Your task to perform on an android device: View the shopping cart on walmart.com. Image 0: 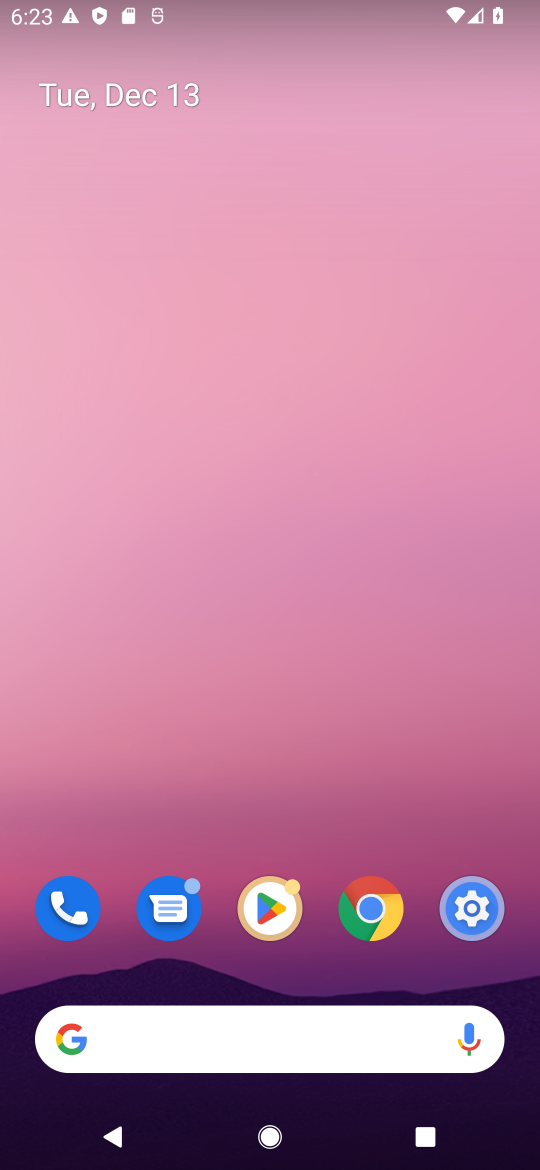
Step 0: press home button
Your task to perform on an android device: View the shopping cart on walmart.com. Image 1: 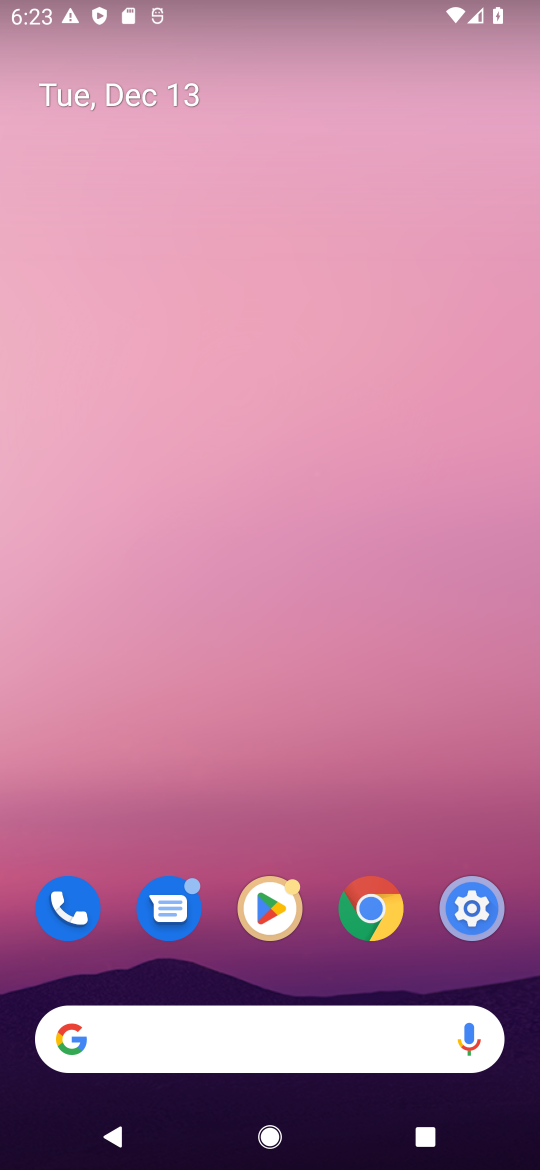
Step 1: drag from (494, 835) to (489, 384)
Your task to perform on an android device: View the shopping cart on walmart.com. Image 2: 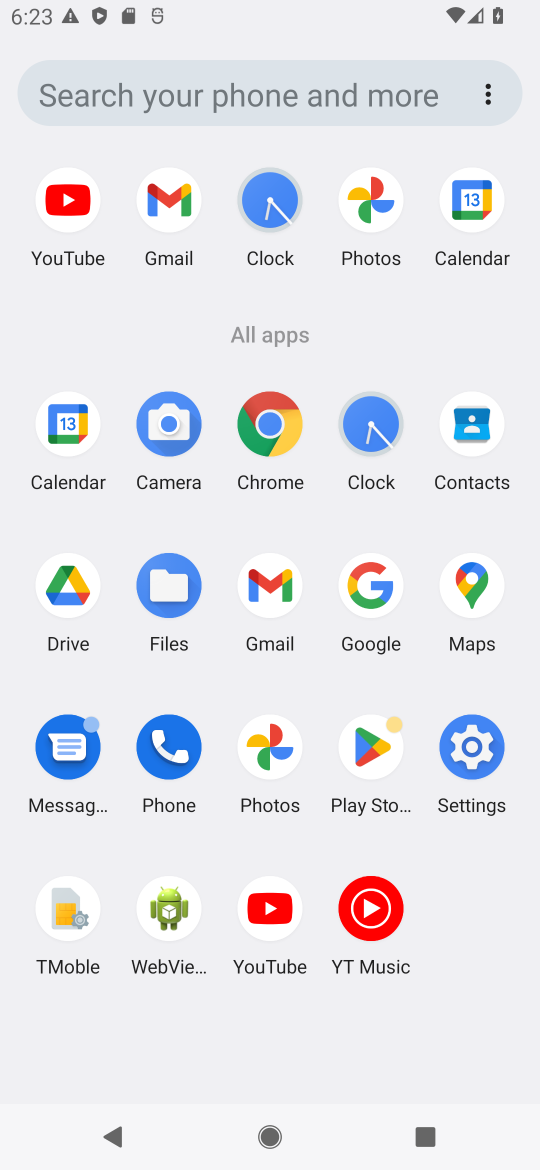
Step 2: press home button
Your task to perform on an android device: View the shopping cart on walmart.com. Image 3: 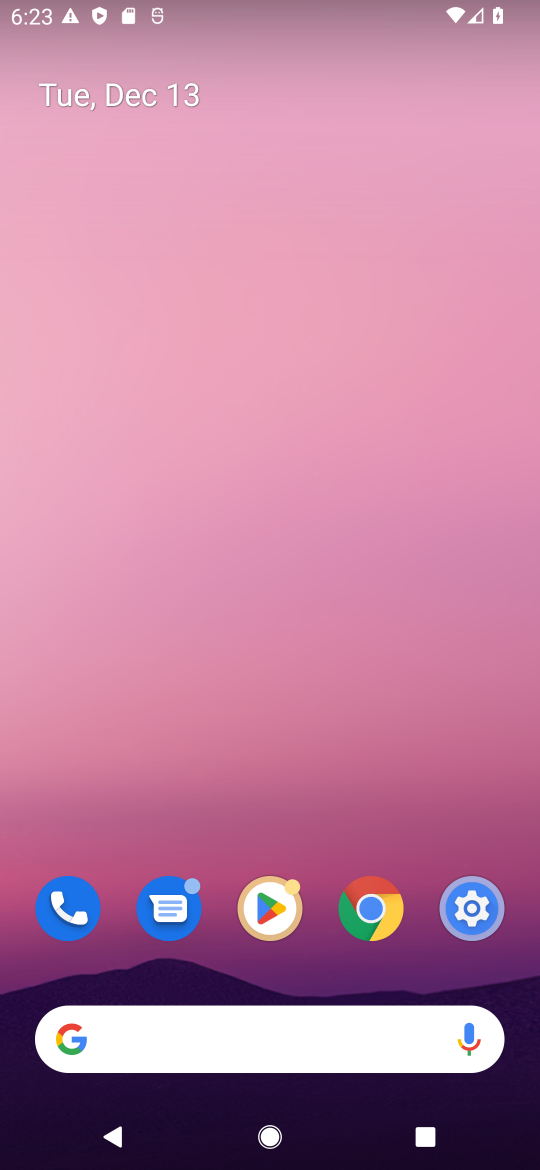
Step 3: click (108, 1035)
Your task to perform on an android device: View the shopping cart on walmart.com. Image 4: 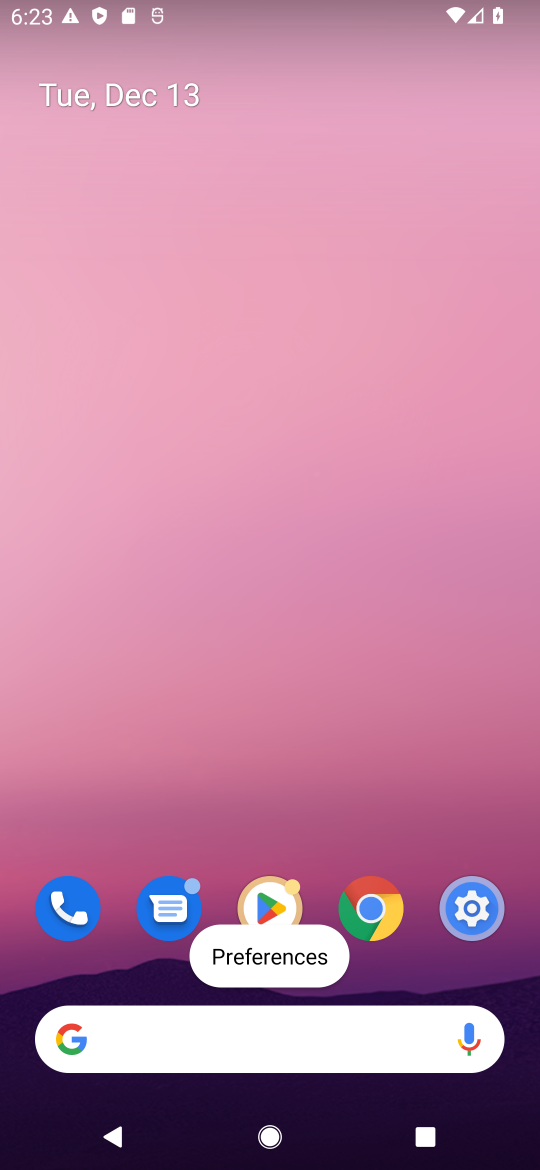
Step 4: click (106, 1045)
Your task to perform on an android device: View the shopping cart on walmart.com. Image 5: 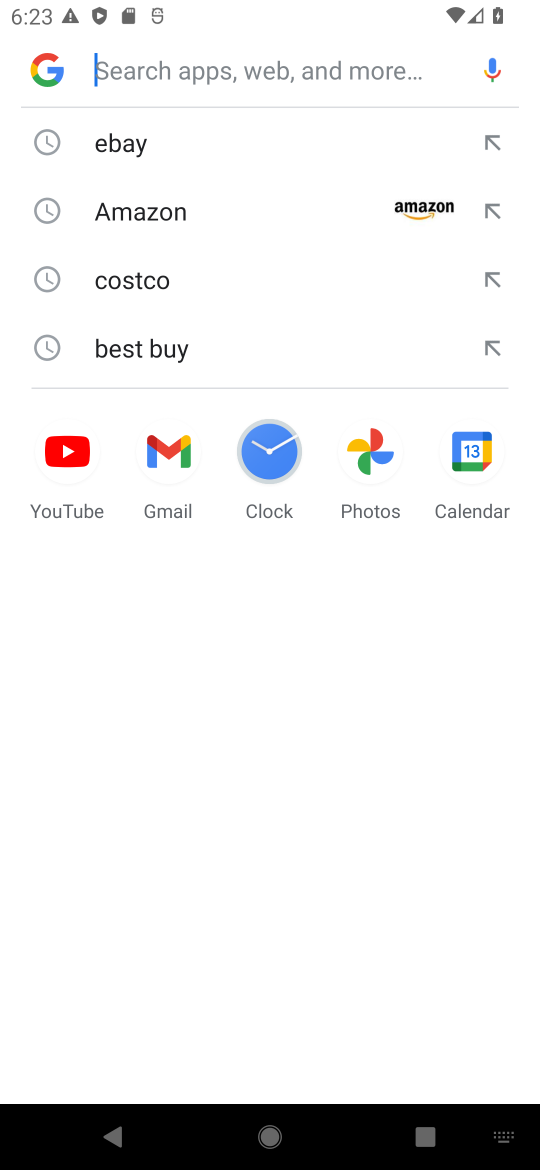
Step 5: press enter
Your task to perform on an android device: View the shopping cart on walmart.com. Image 6: 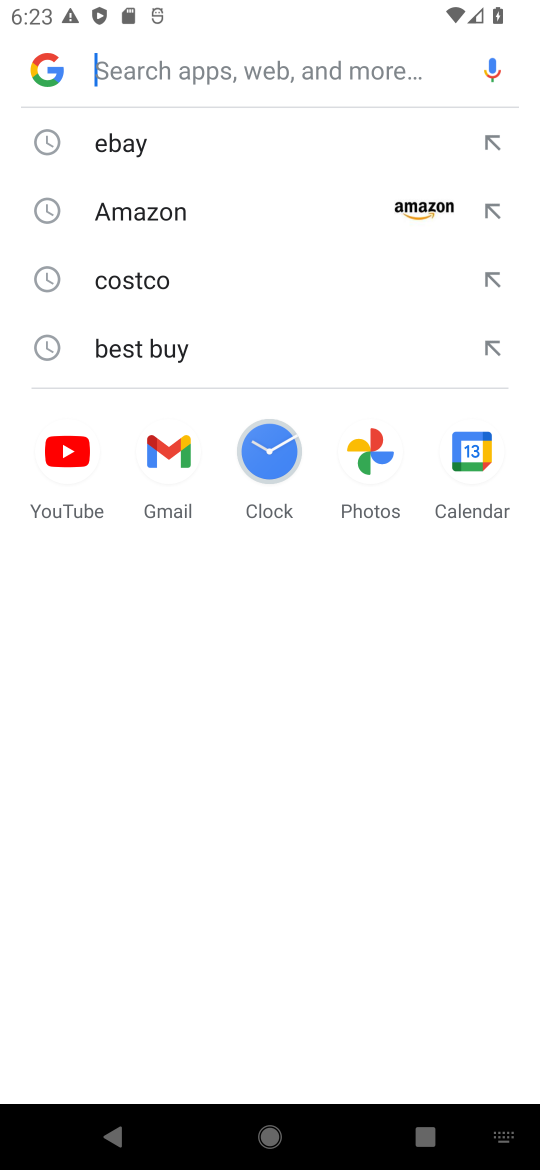
Step 6: type "walmart.com"
Your task to perform on an android device: View the shopping cart on walmart.com. Image 7: 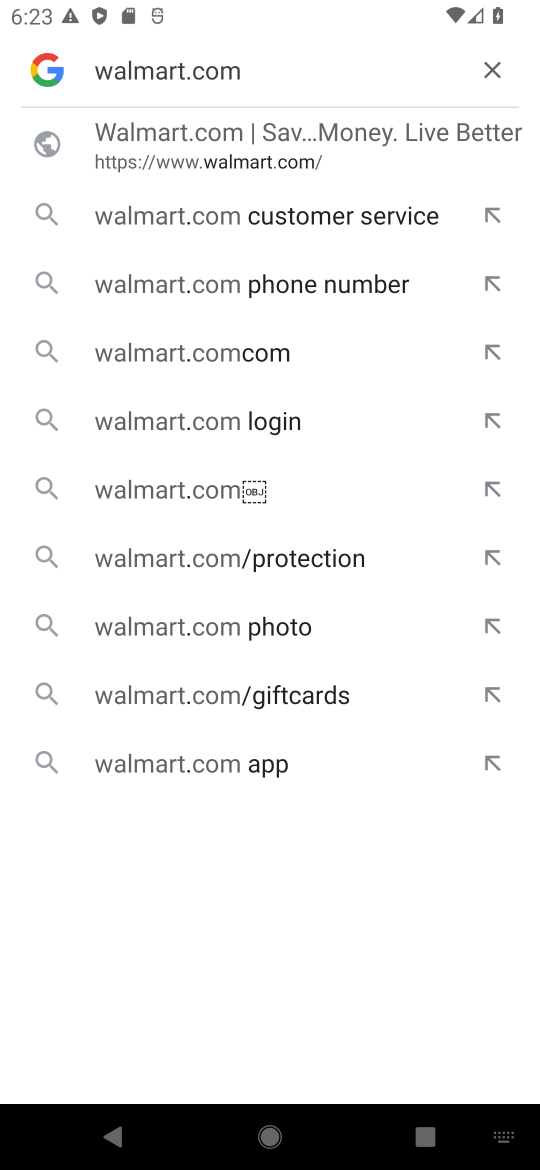
Step 7: press enter
Your task to perform on an android device: View the shopping cart on walmart.com. Image 8: 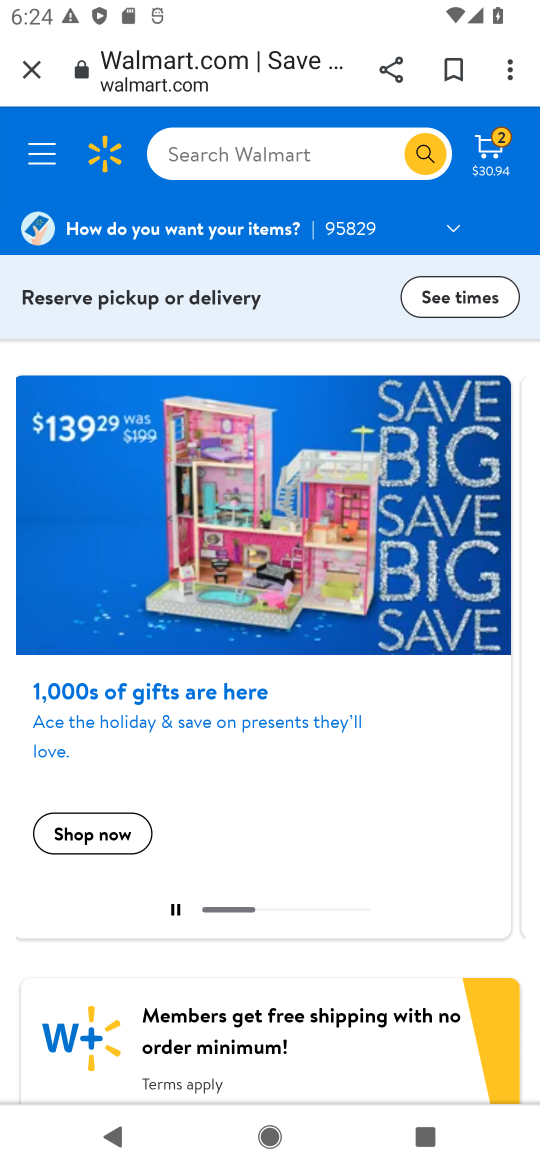
Step 8: click (487, 144)
Your task to perform on an android device: View the shopping cart on walmart.com. Image 9: 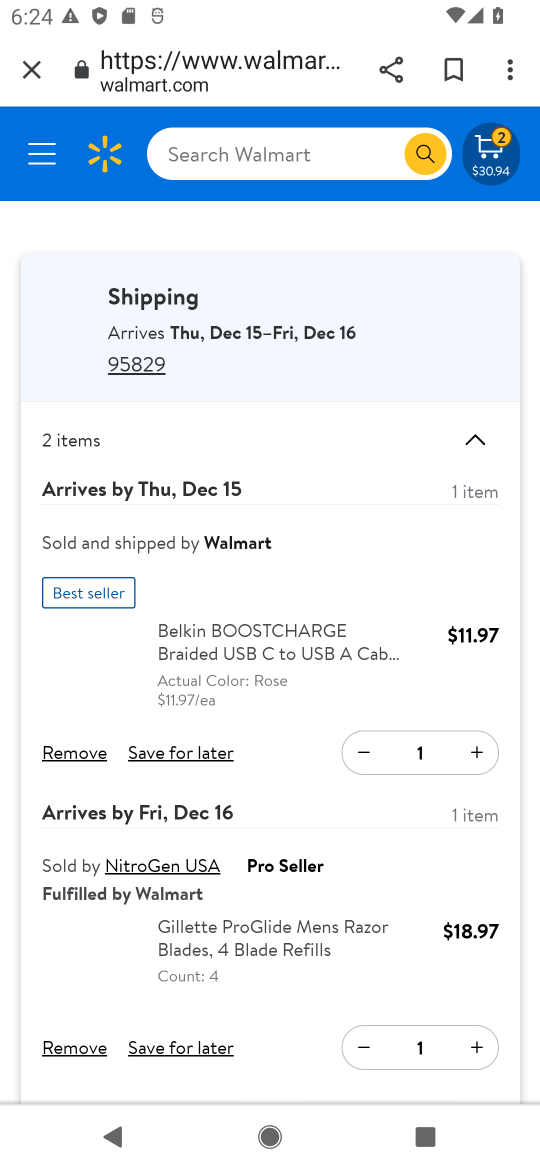
Step 9: task complete